Your task to perform on an android device: change notifications settings Image 0: 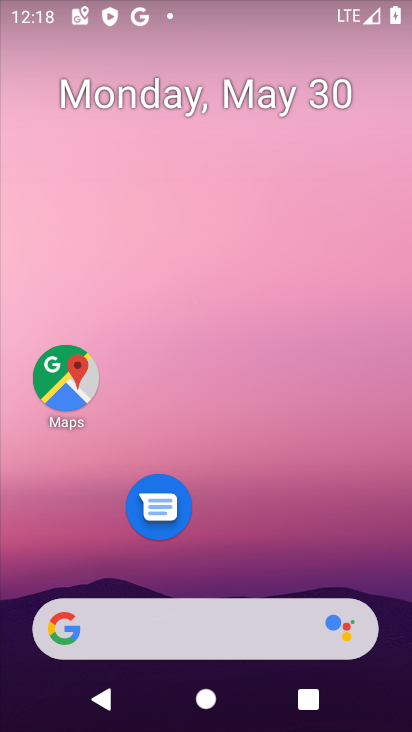
Step 0: drag from (225, 511) to (293, 64)
Your task to perform on an android device: change notifications settings Image 1: 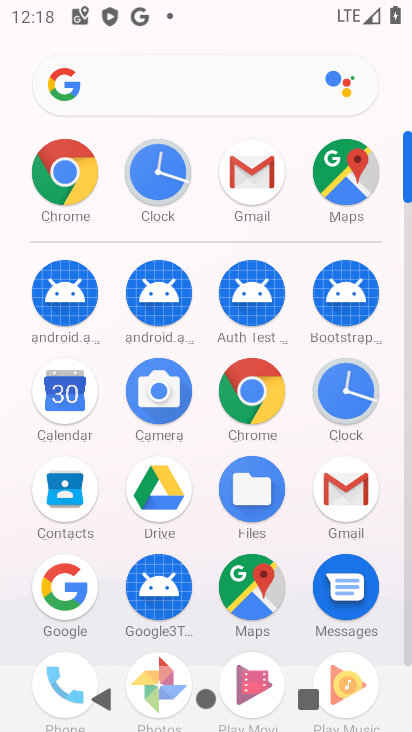
Step 1: drag from (251, 545) to (344, 115)
Your task to perform on an android device: change notifications settings Image 2: 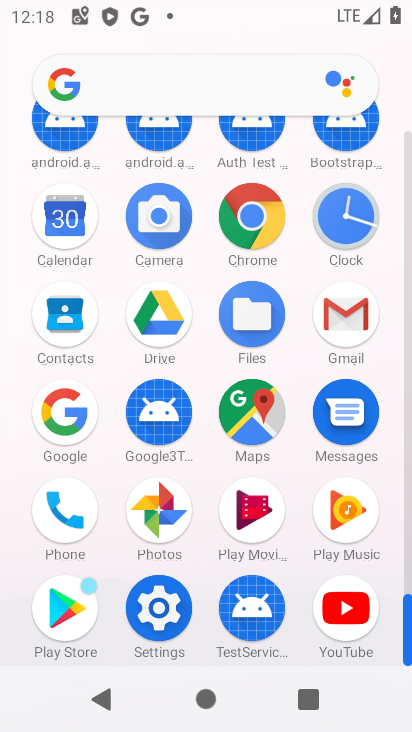
Step 2: click (162, 601)
Your task to perform on an android device: change notifications settings Image 3: 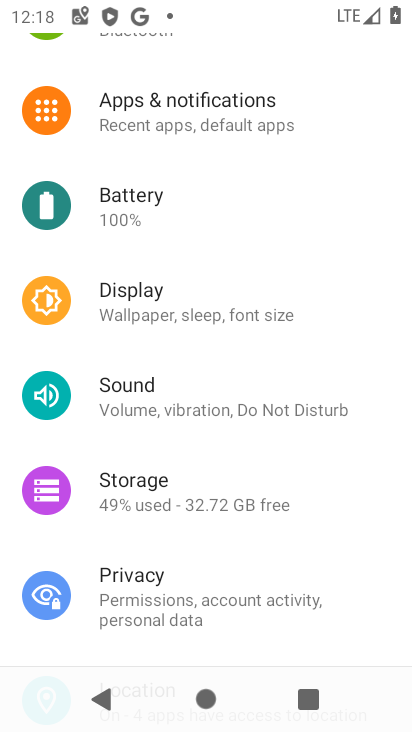
Step 3: click (234, 129)
Your task to perform on an android device: change notifications settings Image 4: 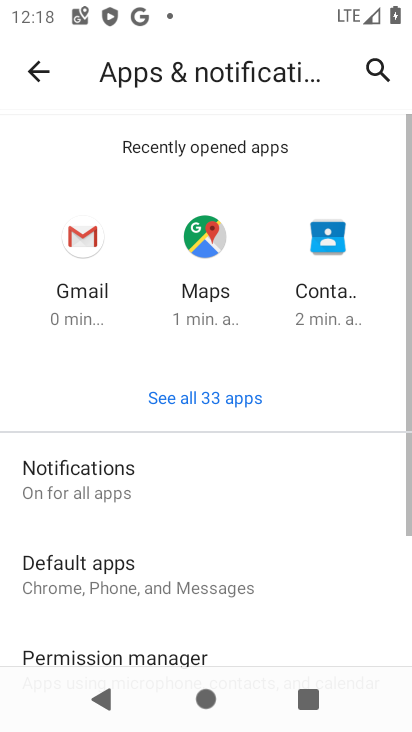
Step 4: click (106, 472)
Your task to perform on an android device: change notifications settings Image 5: 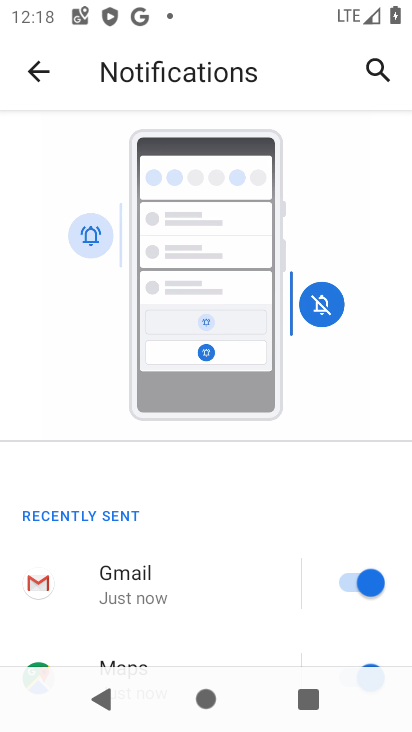
Step 5: drag from (246, 581) to (287, 116)
Your task to perform on an android device: change notifications settings Image 6: 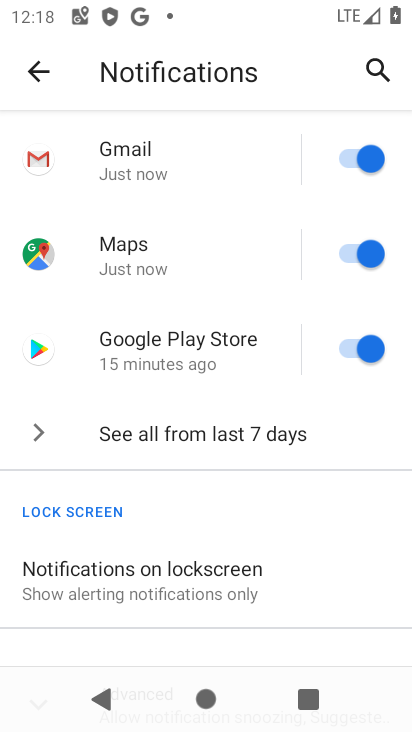
Step 6: click (338, 347)
Your task to perform on an android device: change notifications settings Image 7: 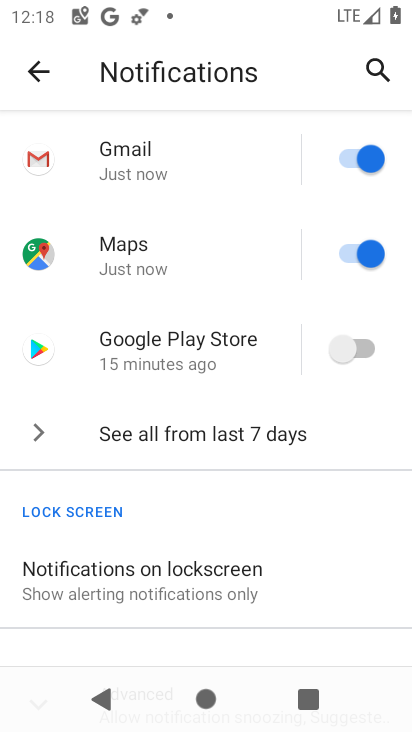
Step 7: task complete